Your task to perform on an android device: toggle sleep mode Image 0: 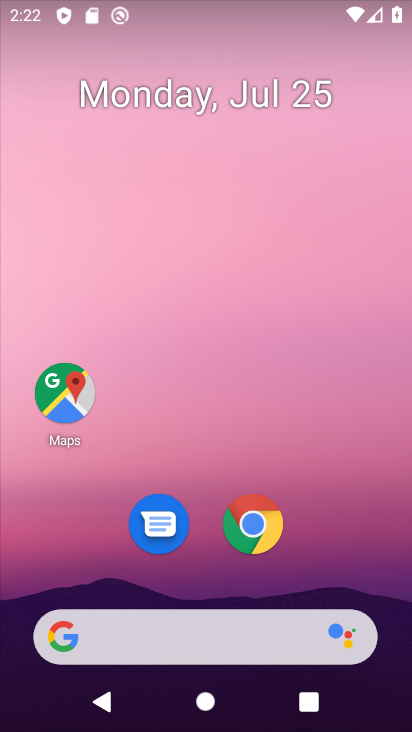
Step 0: drag from (311, 532) to (377, 11)
Your task to perform on an android device: toggle sleep mode Image 1: 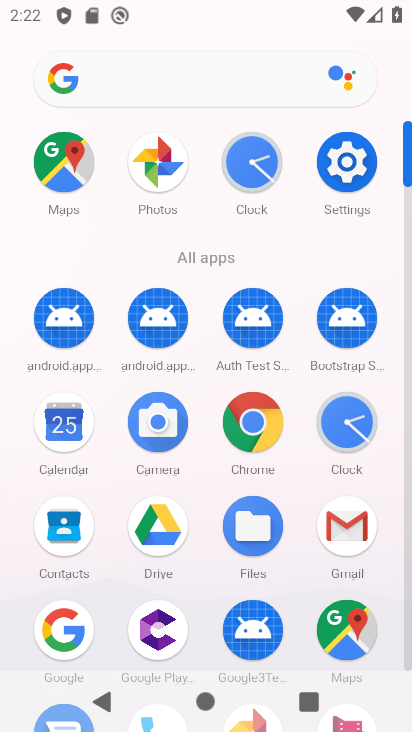
Step 1: click (341, 160)
Your task to perform on an android device: toggle sleep mode Image 2: 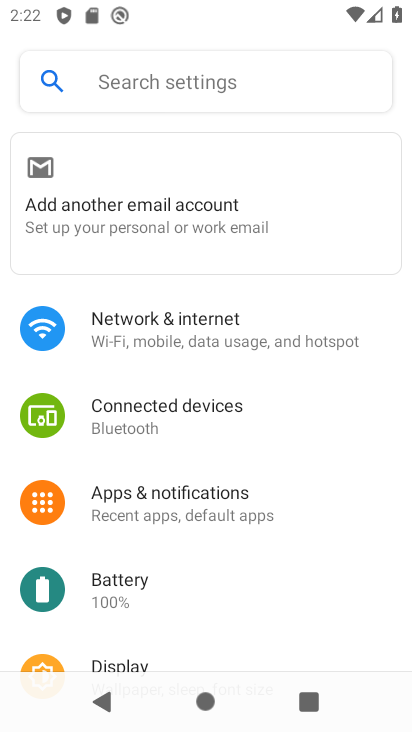
Step 2: drag from (181, 534) to (271, 309)
Your task to perform on an android device: toggle sleep mode Image 3: 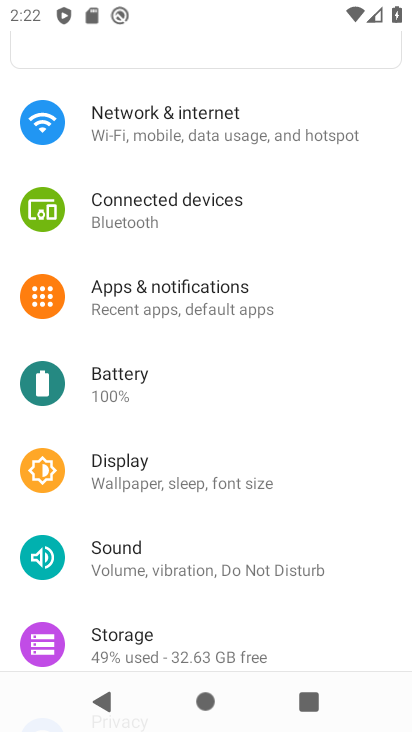
Step 3: click (172, 475)
Your task to perform on an android device: toggle sleep mode Image 4: 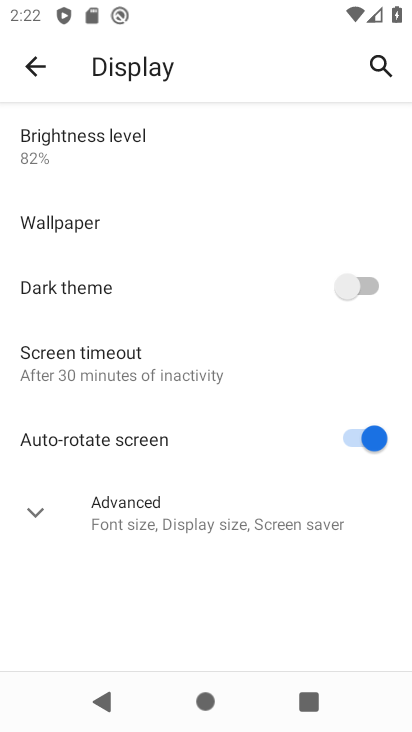
Step 4: click (37, 507)
Your task to perform on an android device: toggle sleep mode Image 5: 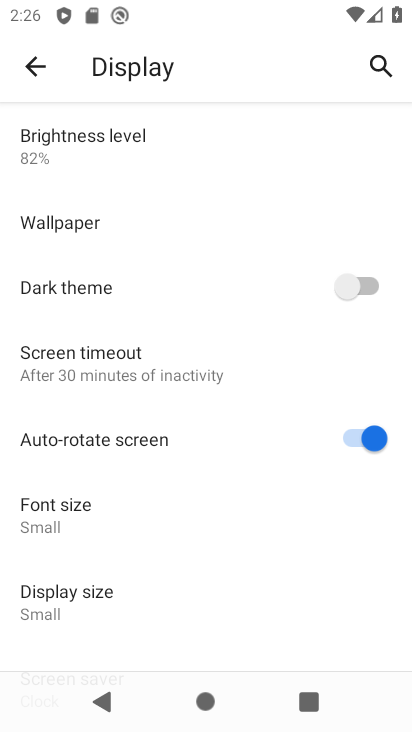
Step 5: task complete